Your task to perform on an android device: find photos in the google photos app Image 0: 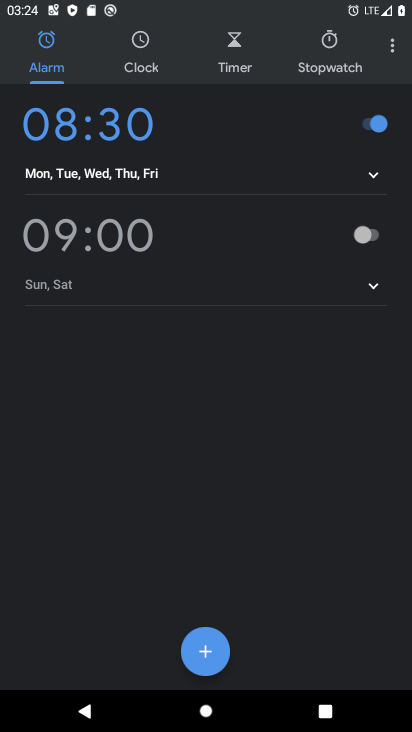
Step 0: press home button
Your task to perform on an android device: find photos in the google photos app Image 1: 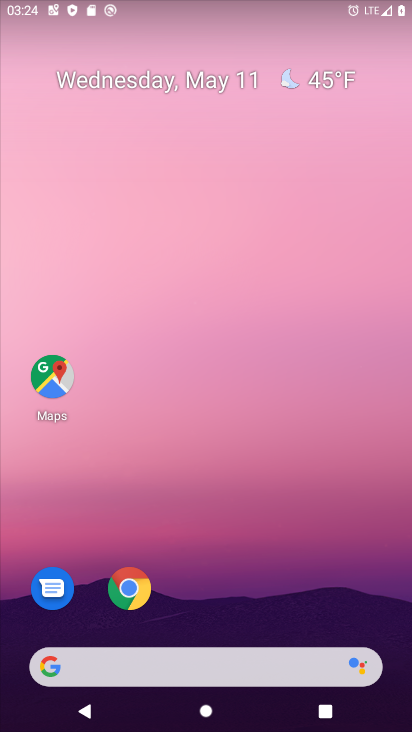
Step 1: drag from (213, 573) to (215, 241)
Your task to perform on an android device: find photos in the google photos app Image 2: 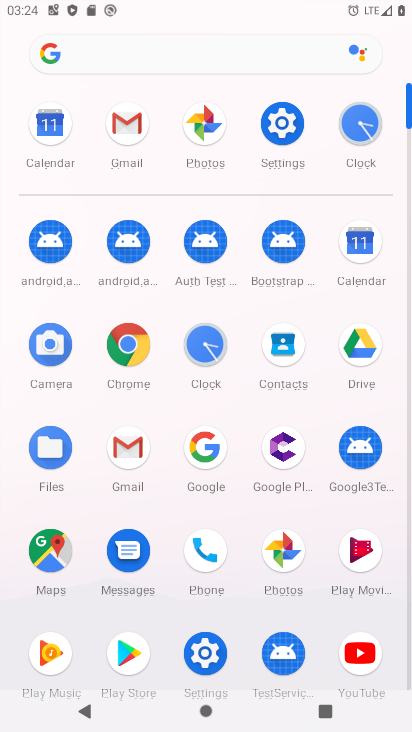
Step 2: click (264, 549)
Your task to perform on an android device: find photos in the google photos app Image 3: 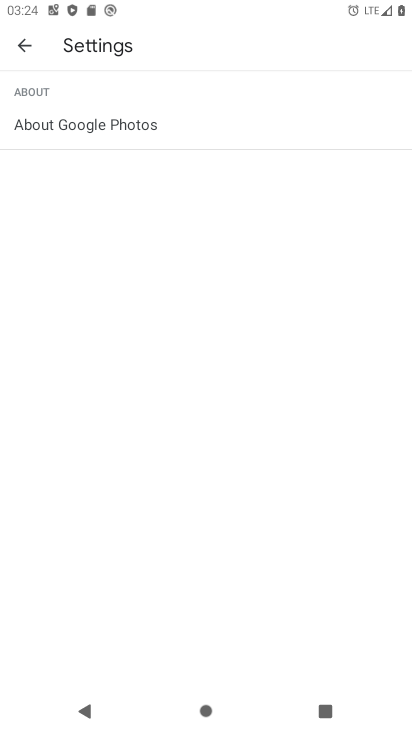
Step 3: click (35, 44)
Your task to perform on an android device: find photos in the google photos app Image 4: 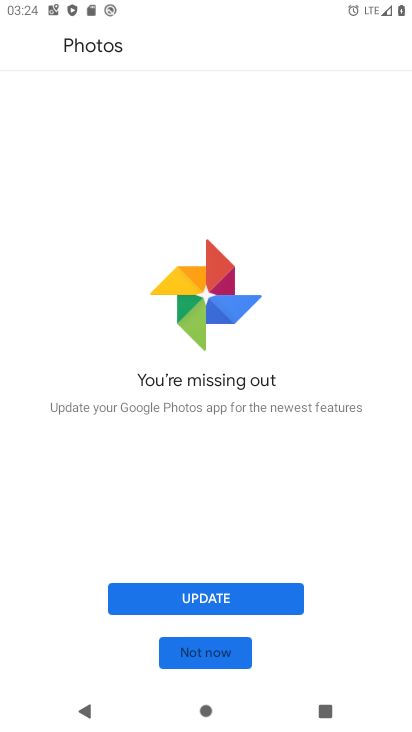
Step 4: click (223, 655)
Your task to perform on an android device: find photos in the google photos app Image 5: 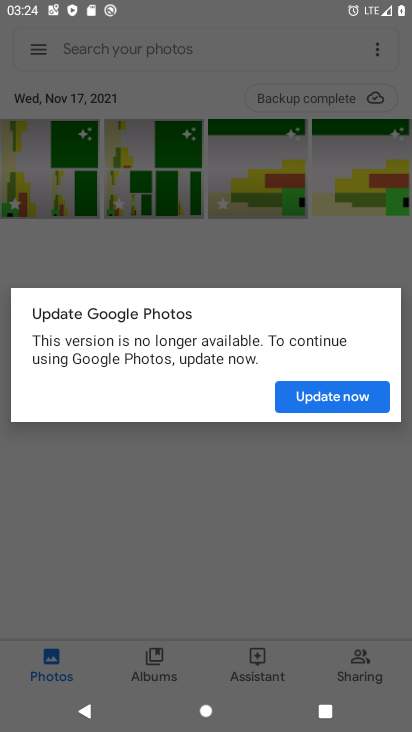
Step 5: click (292, 394)
Your task to perform on an android device: find photos in the google photos app Image 6: 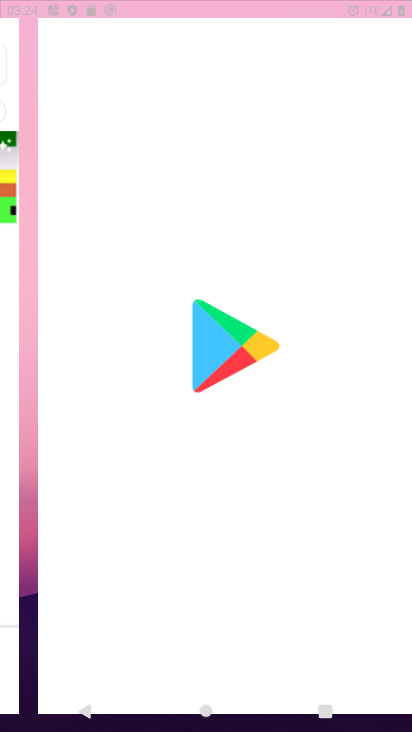
Step 6: click (206, 56)
Your task to perform on an android device: find photos in the google photos app Image 7: 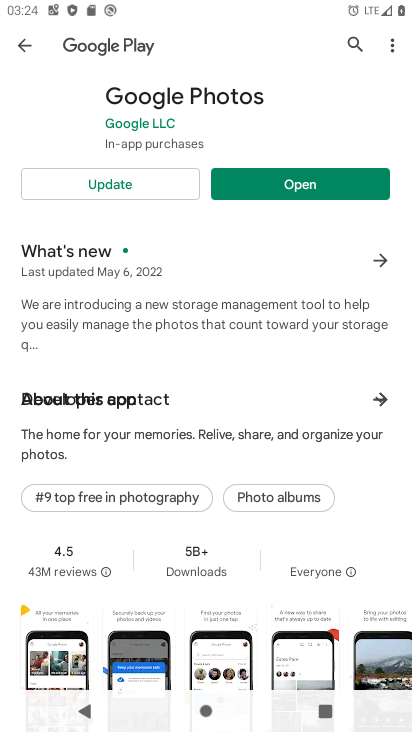
Step 7: press back button
Your task to perform on an android device: find photos in the google photos app Image 8: 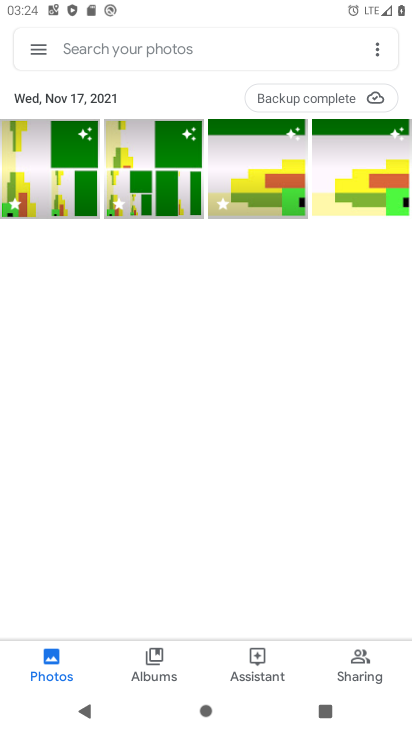
Step 8: click (135, 50)
Your task to perform on an android device: find photos in the google photos app Image 9: 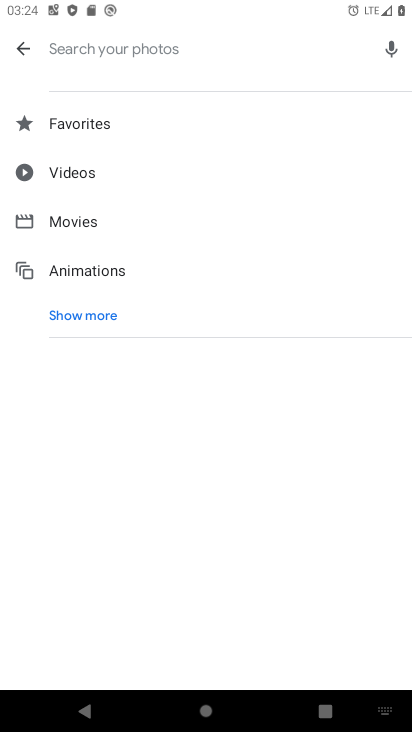
Step 9: type "aa"
Your task to perform on an android device: find photos in the google photos app Image 10: 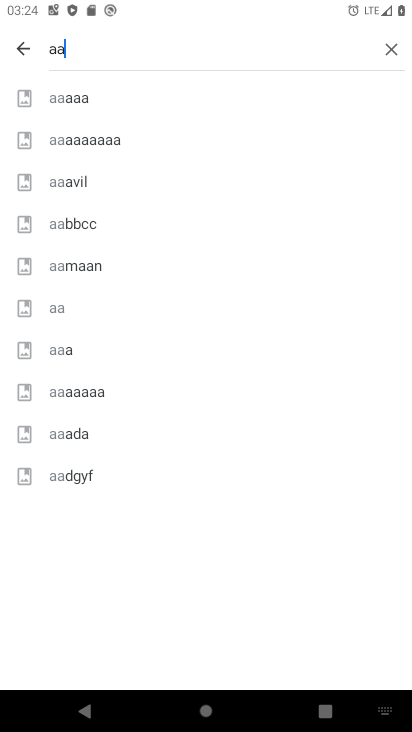
Step 10: click (110, 182)
Your task to perform on an android device: find photos in the google photos app Image 11: 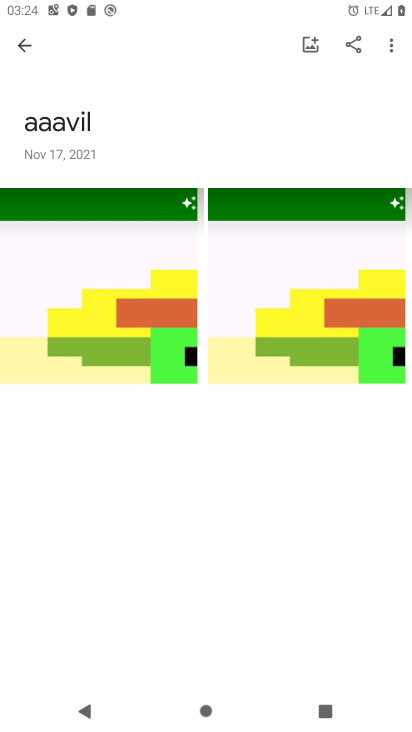
Step 11: task complete